Your task to perform on an android device: check the backup settings in the google photos Image 0: 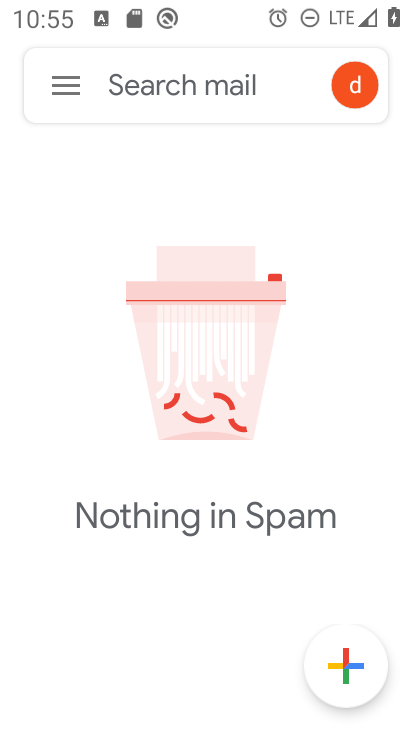
Step 0: press home button
Your task to perform on an android device: check the backup settings in the google photos Image 1: 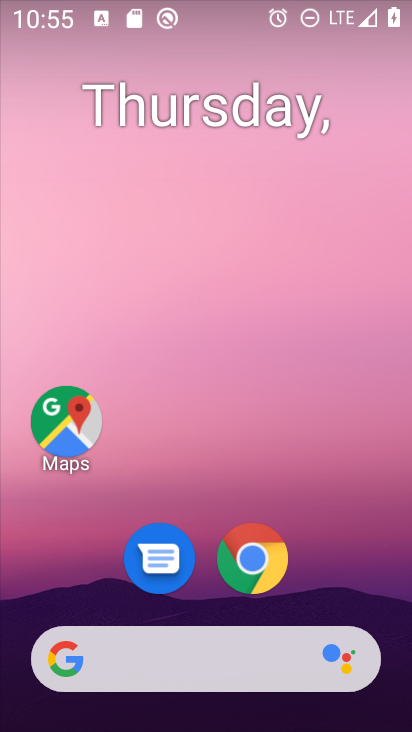
Step 1: drag from (386, 630) to (316, 126)
Your task to perform on an android device: check the backup settings in the google photos Image 2: 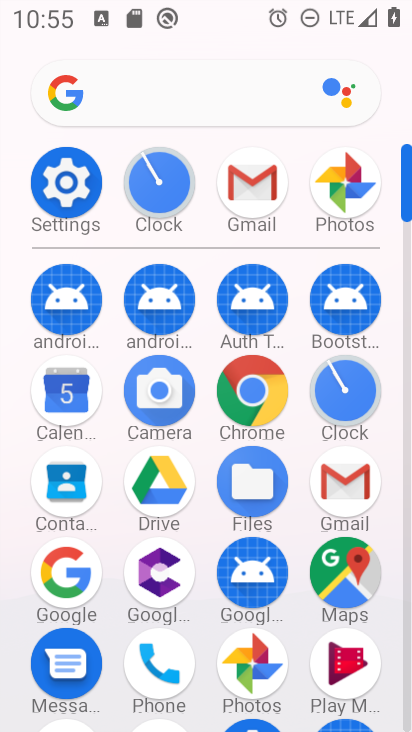
Step 2: click (406, 702)
Your task to perform on an android device: check the backup settings in the google photos Image 3: 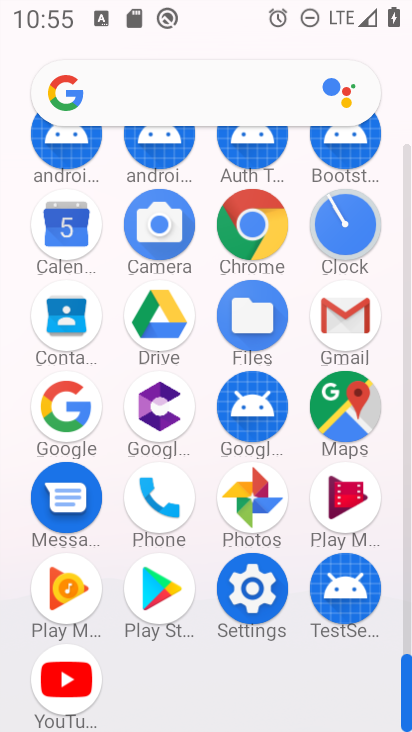
Step 3: click (251, 500)
Your task to perform on an android device: check the backup settings in the google photos Image 4: 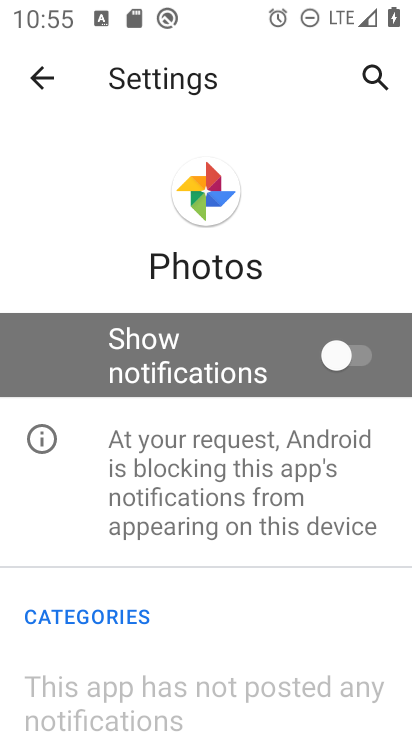
Step 4: press back button
Your task to perform on an android device: check the backup settings in the google photos Image 5: 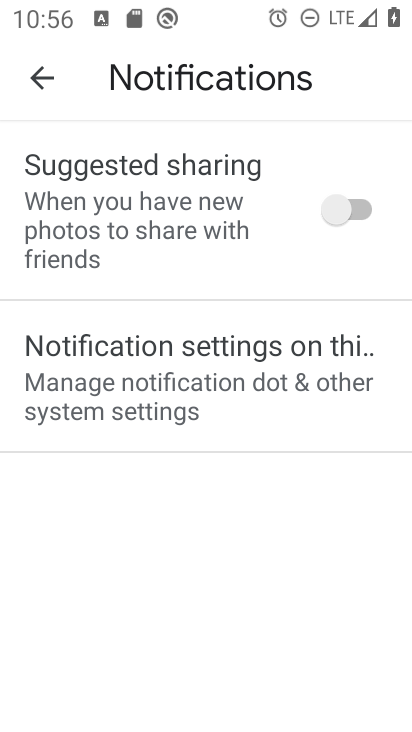
Step 5: press back button
Your task to perform on an android device: check the backup settings in the google photos Image 6: 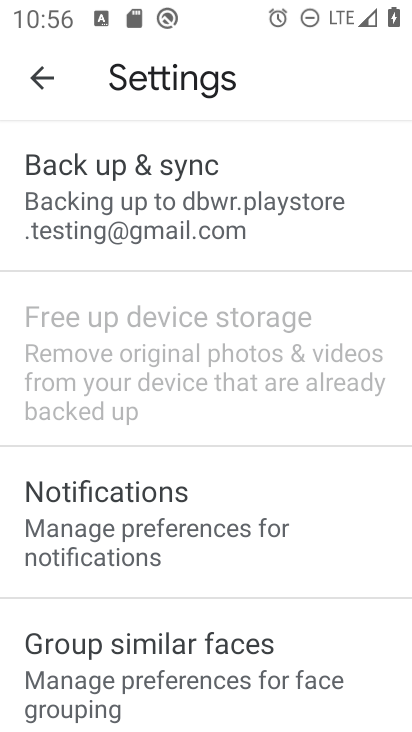
Step 6: click (90, 188)
Your task to perform on an android device: check the backup settings in the google photos Image 7: 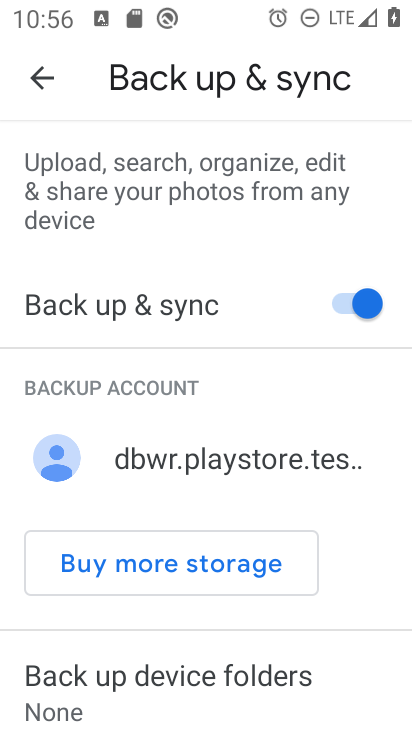
Step 7: task complete